Your task to perform on an android device: manage bookmarks in the chrome app Image 0: 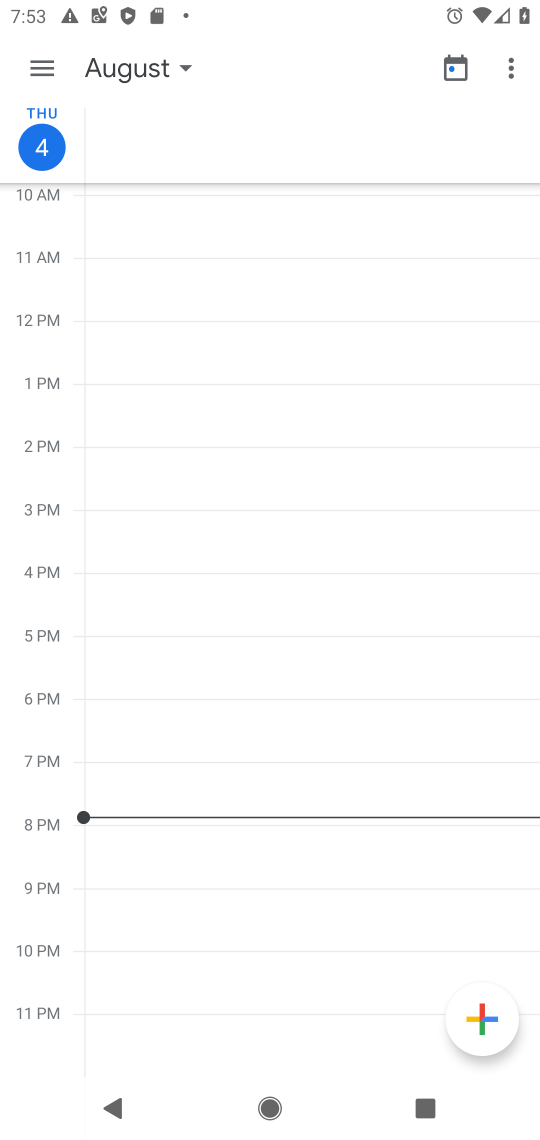
Step 0: press home button
Your task to perform on an android device: manage bookmarks in the chrome app Image 1: 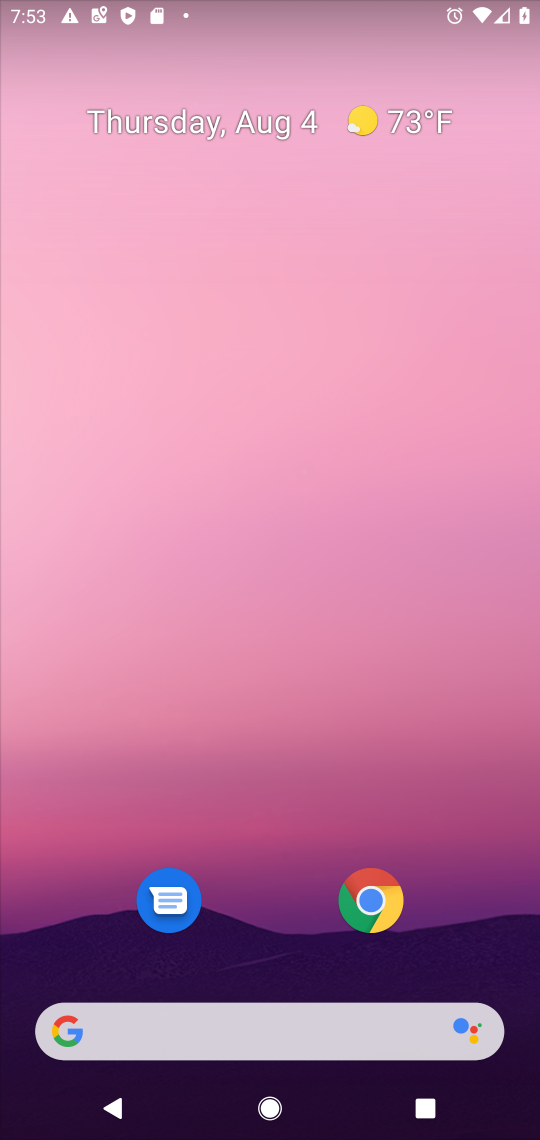
Step 1: click (376, 902)
Your task to perform on an android device: manage bookmarks in the chrome app Image 2: 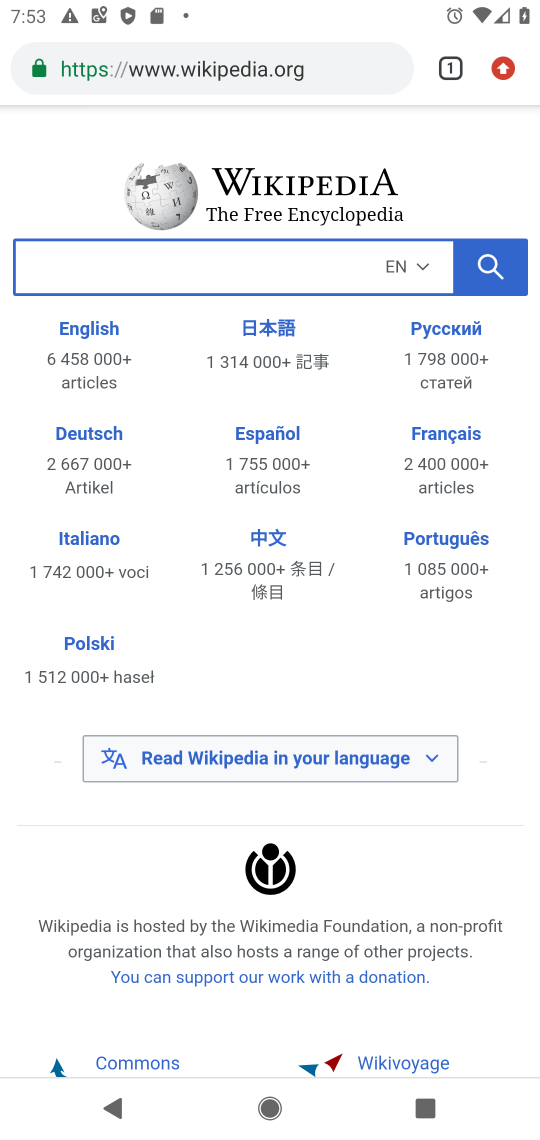
Step 2: drag from (503, 63) to (340, 349)
Your task to perform on an android device: manage bookmarks in the chrome app Image 3: 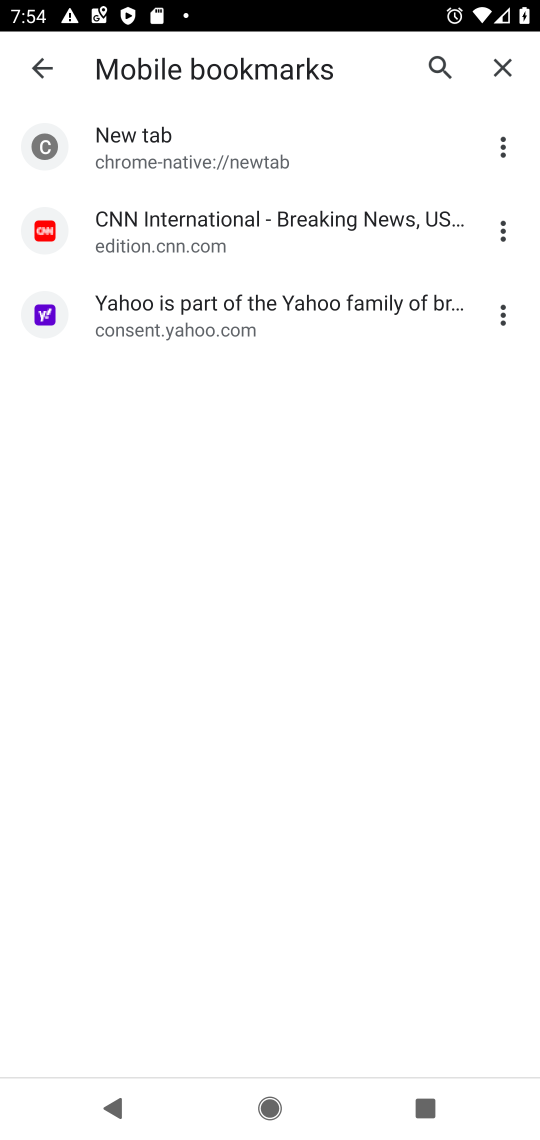
Step 3: click (509, 145)
Your task to perform on an android device: manage bookmarks in the chrome app Image 4: 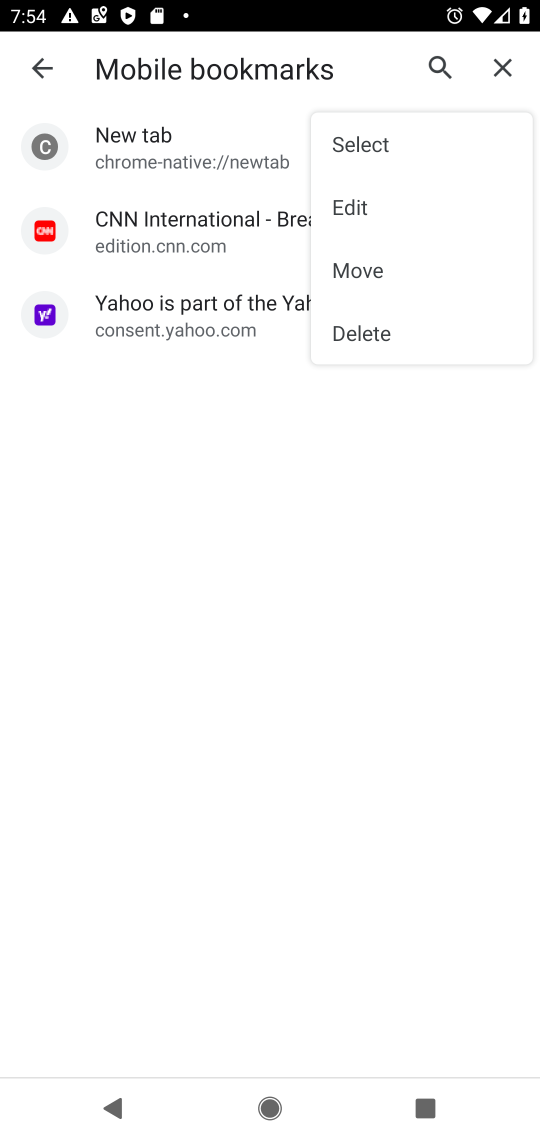
Step 4: click (364, 208)
Your task to perform on an android device: manage bookmarks in the chrome app Image 5: 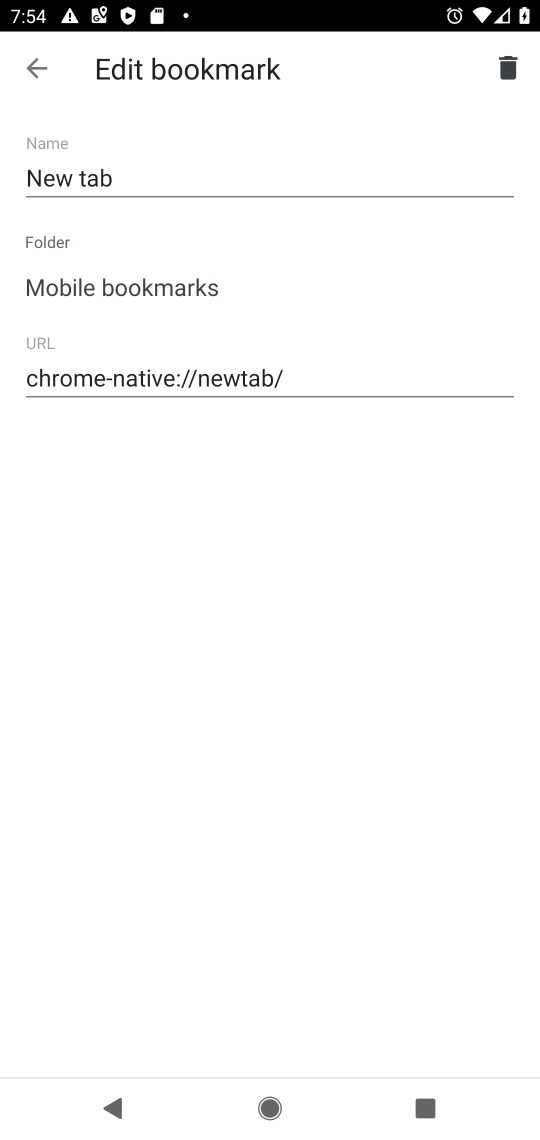
Step 5: click (509, 74)
Your task to perform on an android device: manage bookmarks in the chrome app Image 6: 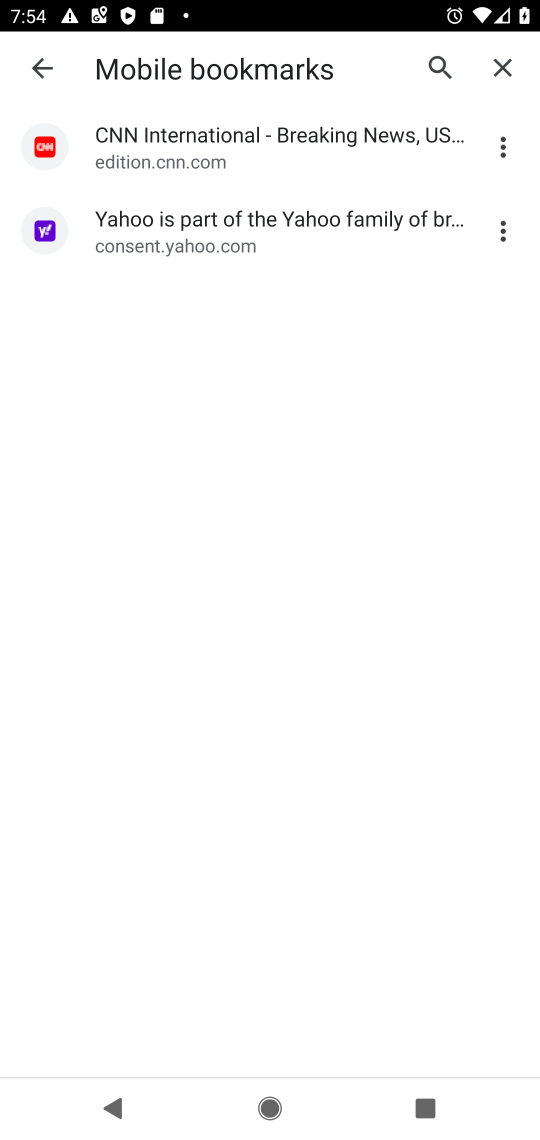
Step 6: task complete